Your task to perform on an android device: Add bose soundsport free to the cart on walmart, then select checkout. Image 0: 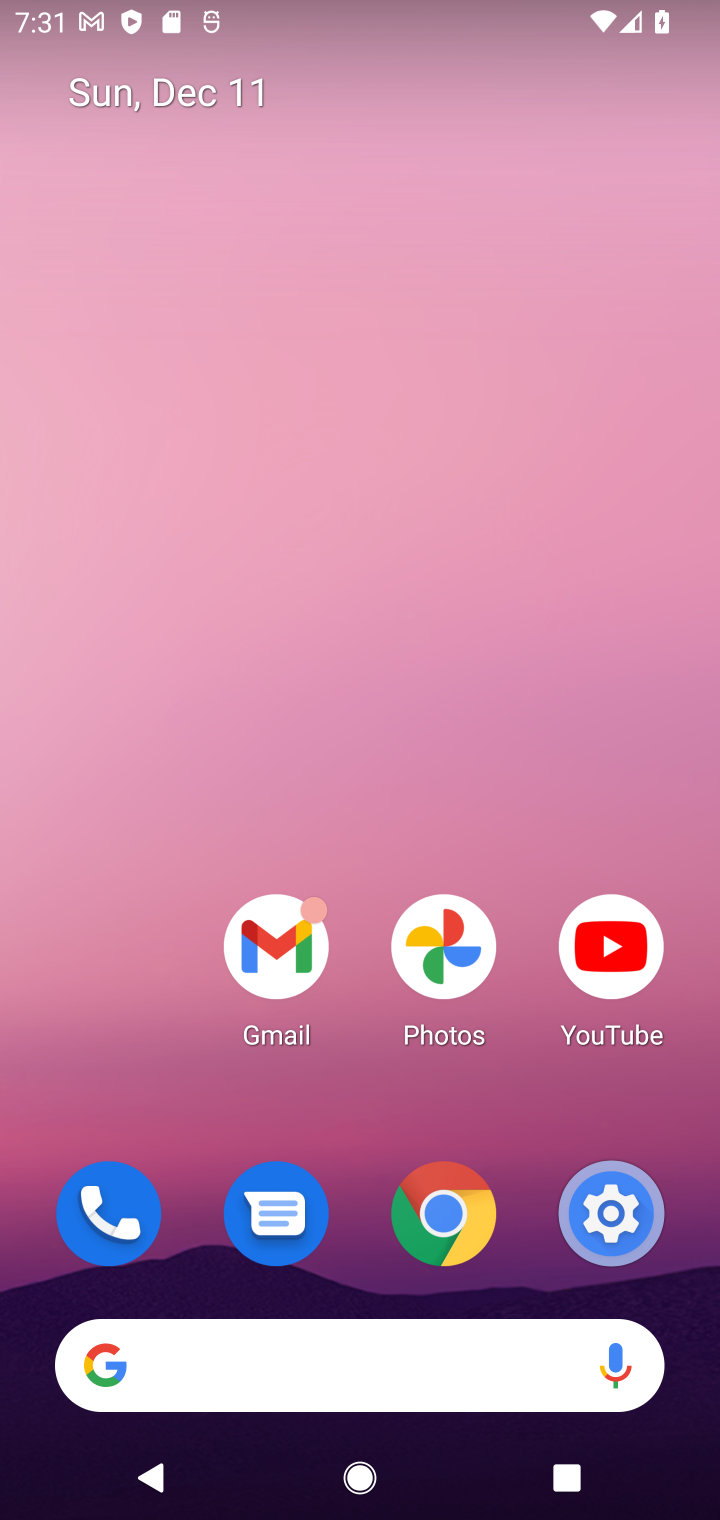
Step 0: click (443, 1329)
Your task to perform on an android device: Add bose soundsport free to the cart on walmart, then select checkout. Image 1: 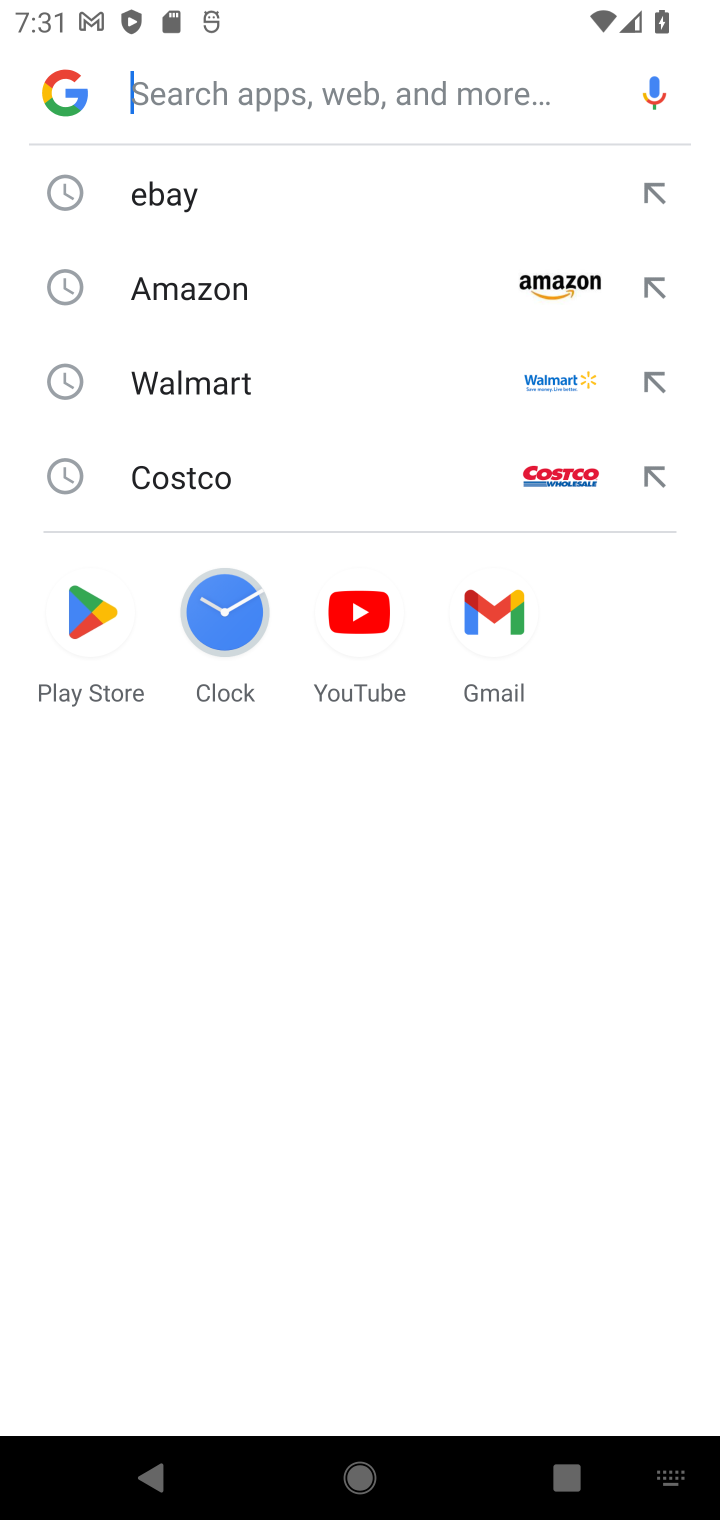
Step 1: click (300, 388)
Your task to perform on an android device: Add bose soundsport free to the cart on walmart, then select checkout. Image 2: 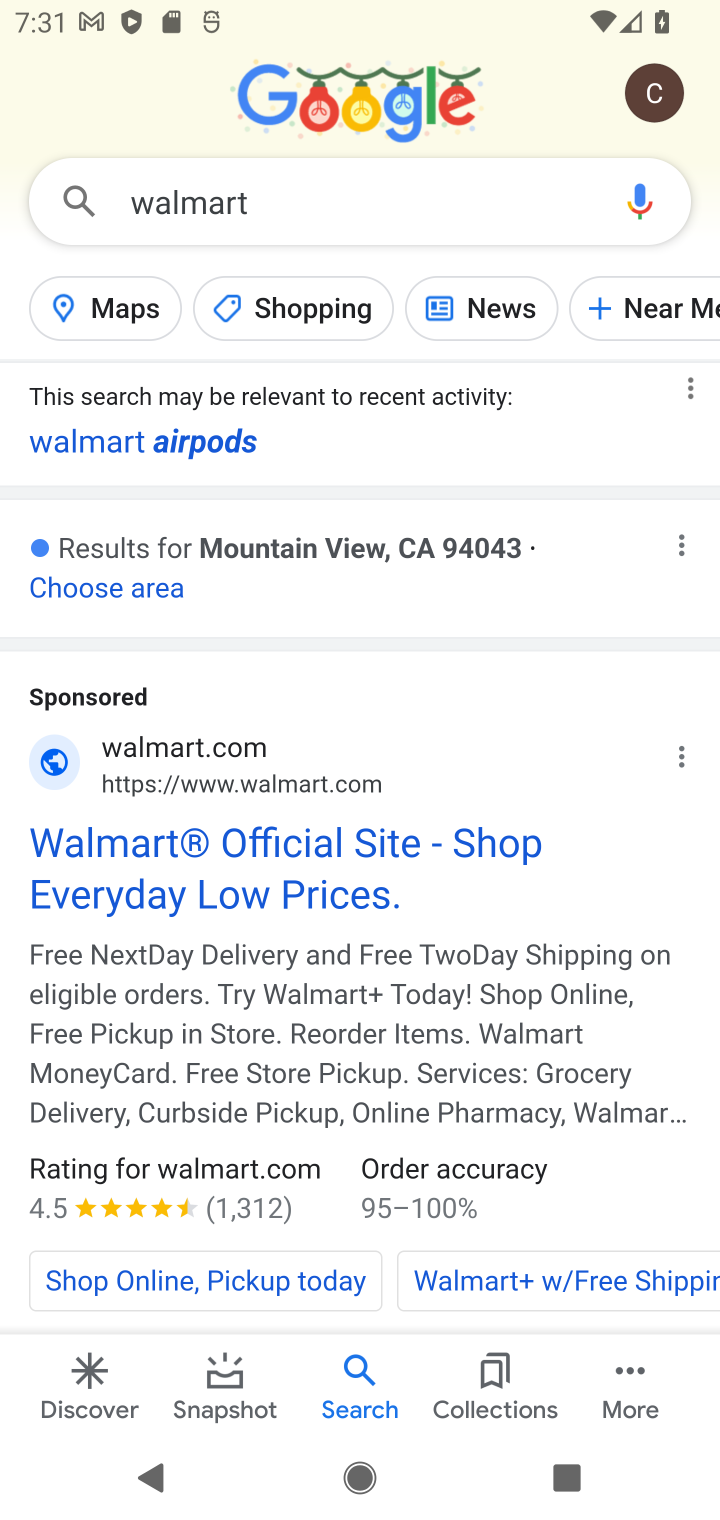
Step 2: click (119, 866)
Your task to perform on an android device: Add bose soundsport free to the cart on walmart, then select checkout. Image 3: 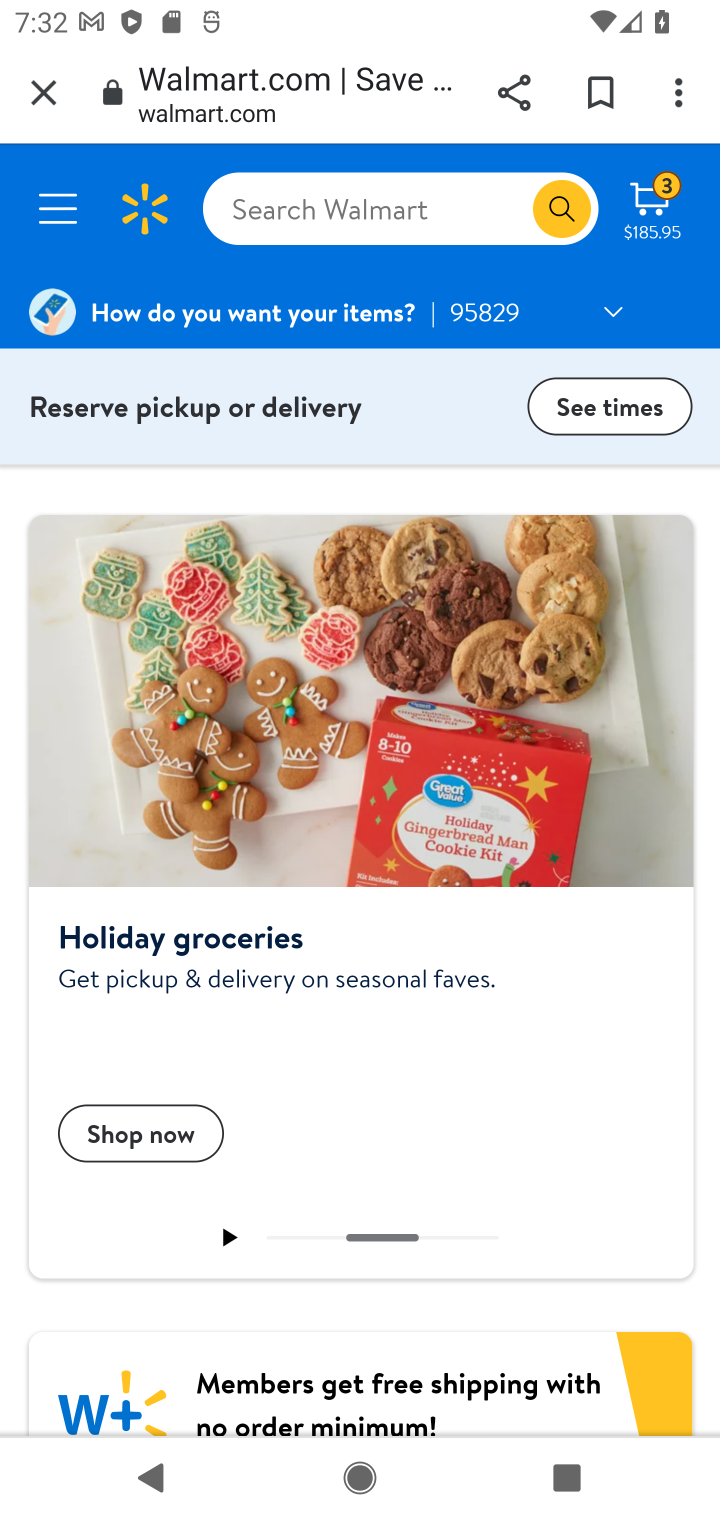
Step 3: click (355, 233)
Your task to perform on an android device: Add bose soundsport free to the cart on walmart, then select checkout. Image 4: 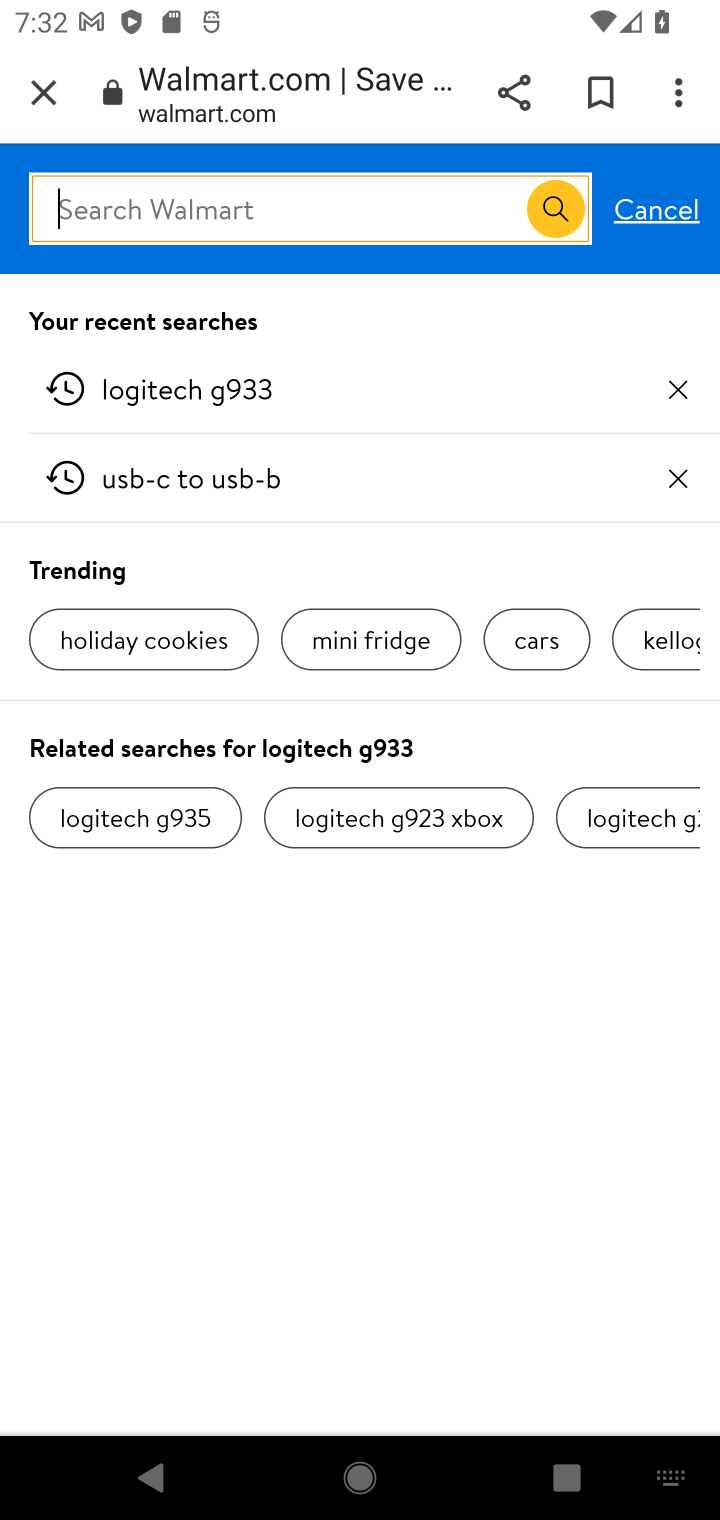
Step 4: type "bose soundsports"
Your task to perform on an android device: Add bose soundsport free to the cart on walmart, then select checkout. Image 5: 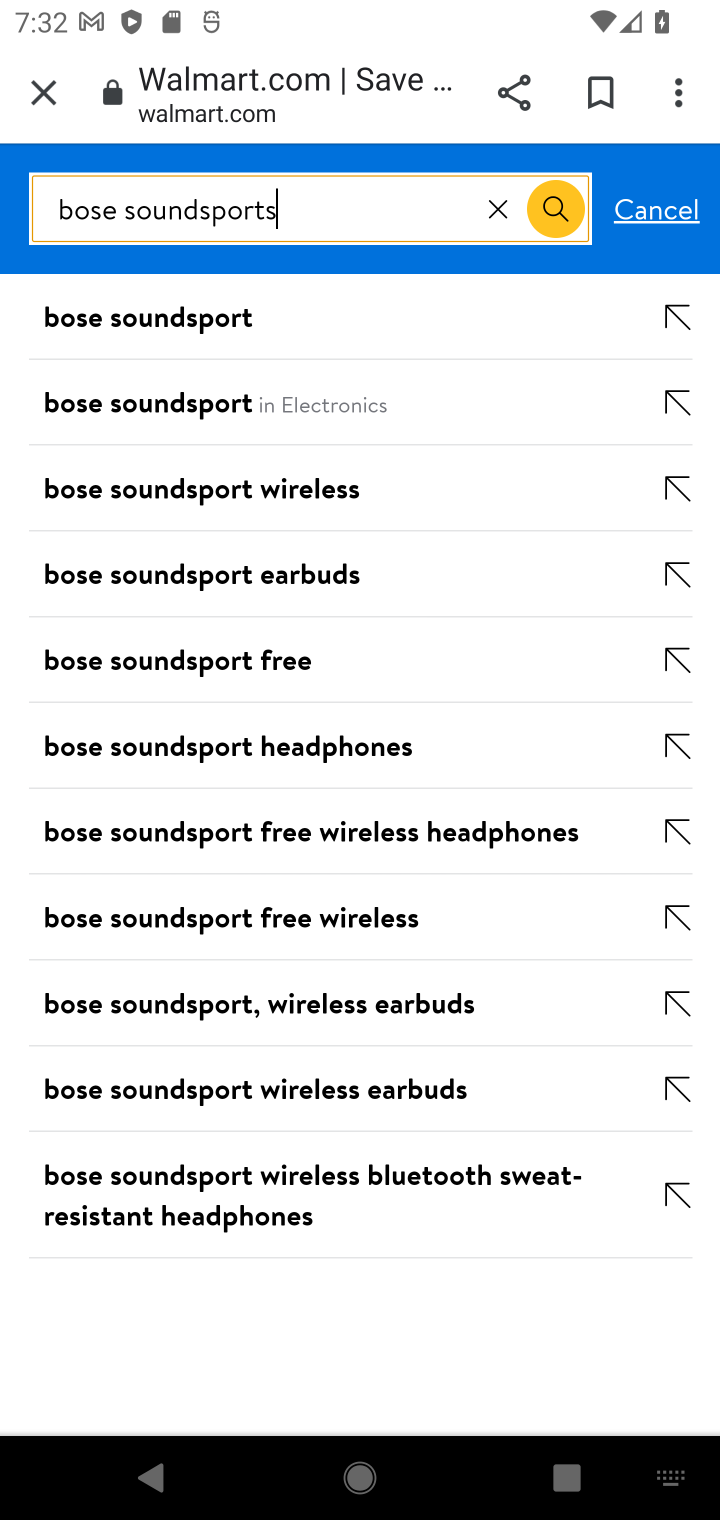
Step 5: click (333, 314)
Your task to perform on an android device: Add bose soundsport free to the cart on walmart, then select checkout. Image 6: 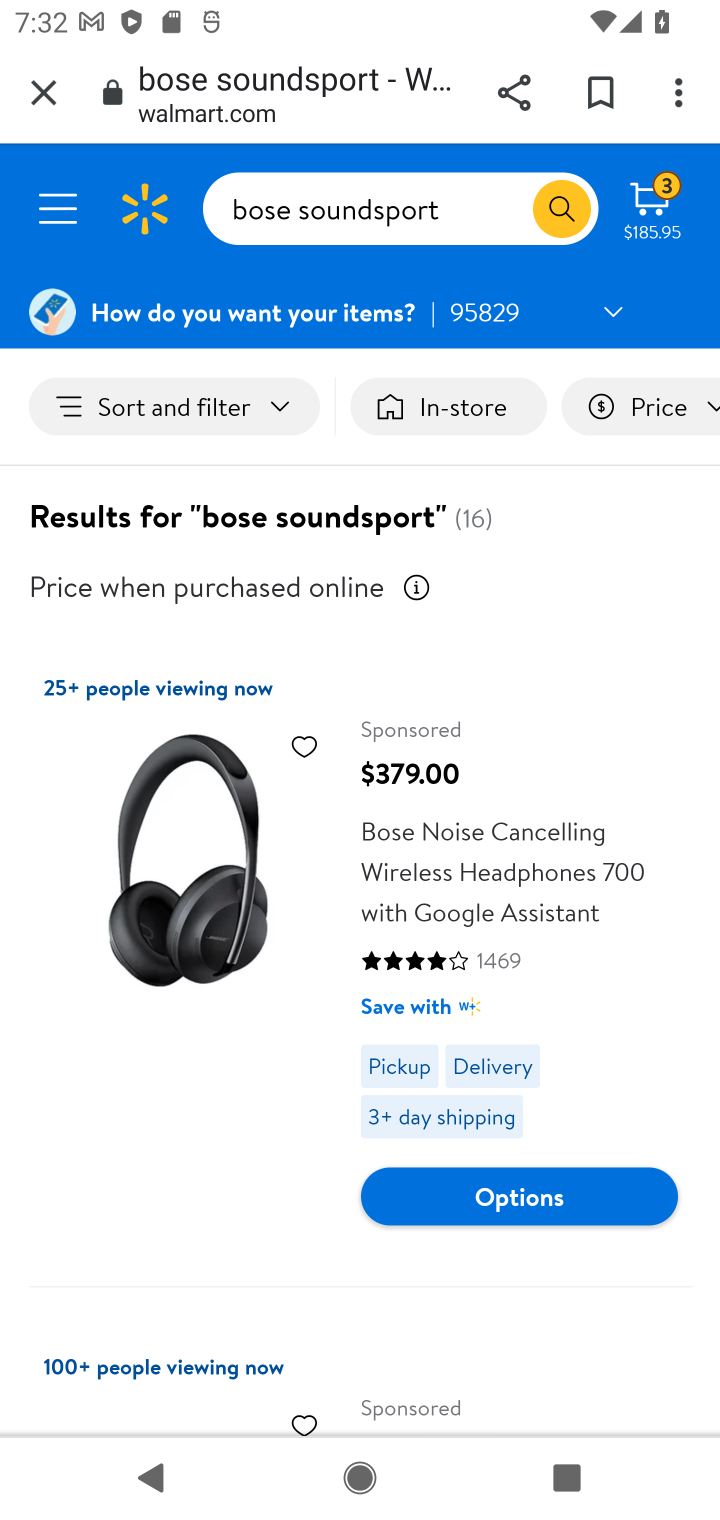
Step 6: click (597, 1206)
Your task to perform on an android device: Add bose soundsport free to the cart on walmart, then select checkout. Image 7: 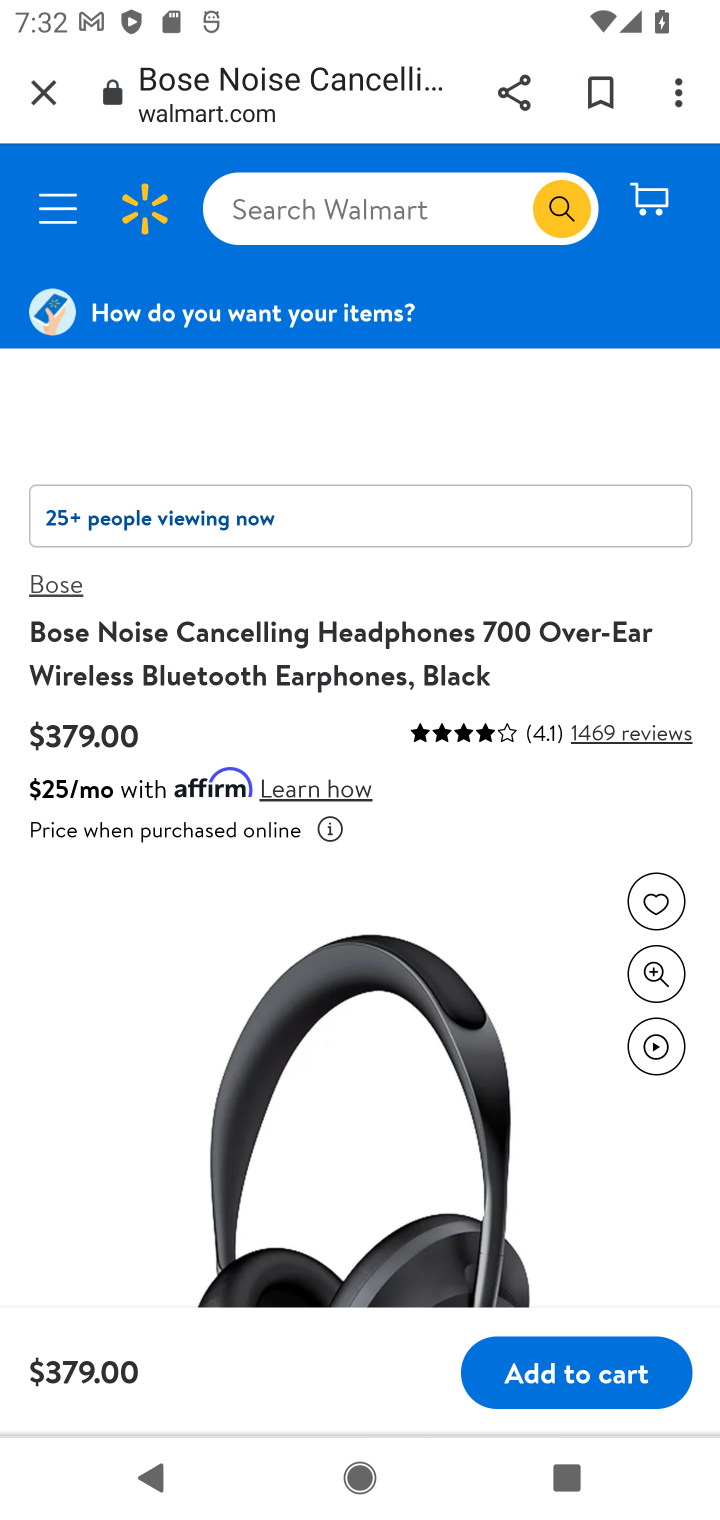
Step 7: drag from (584, 1191) to (483, 651)
Your task to perform on an android device: Add bose soundsport free to the cart on walmart, then select checkout. Image 8: 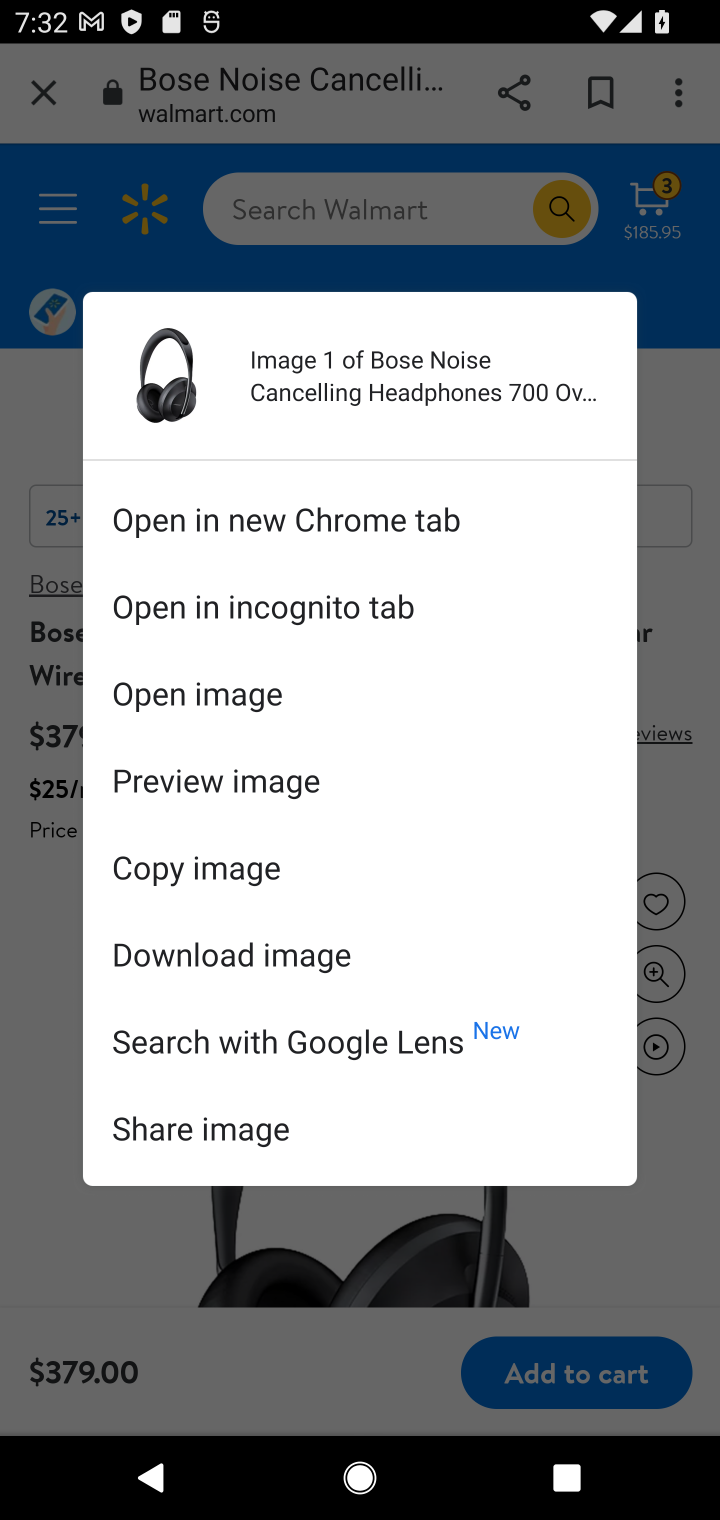
Step 8: click (404, 1285)
Your task to perform on an android device: Add bose soundsport free to the cart on walmart, then select checkout. Image 9: 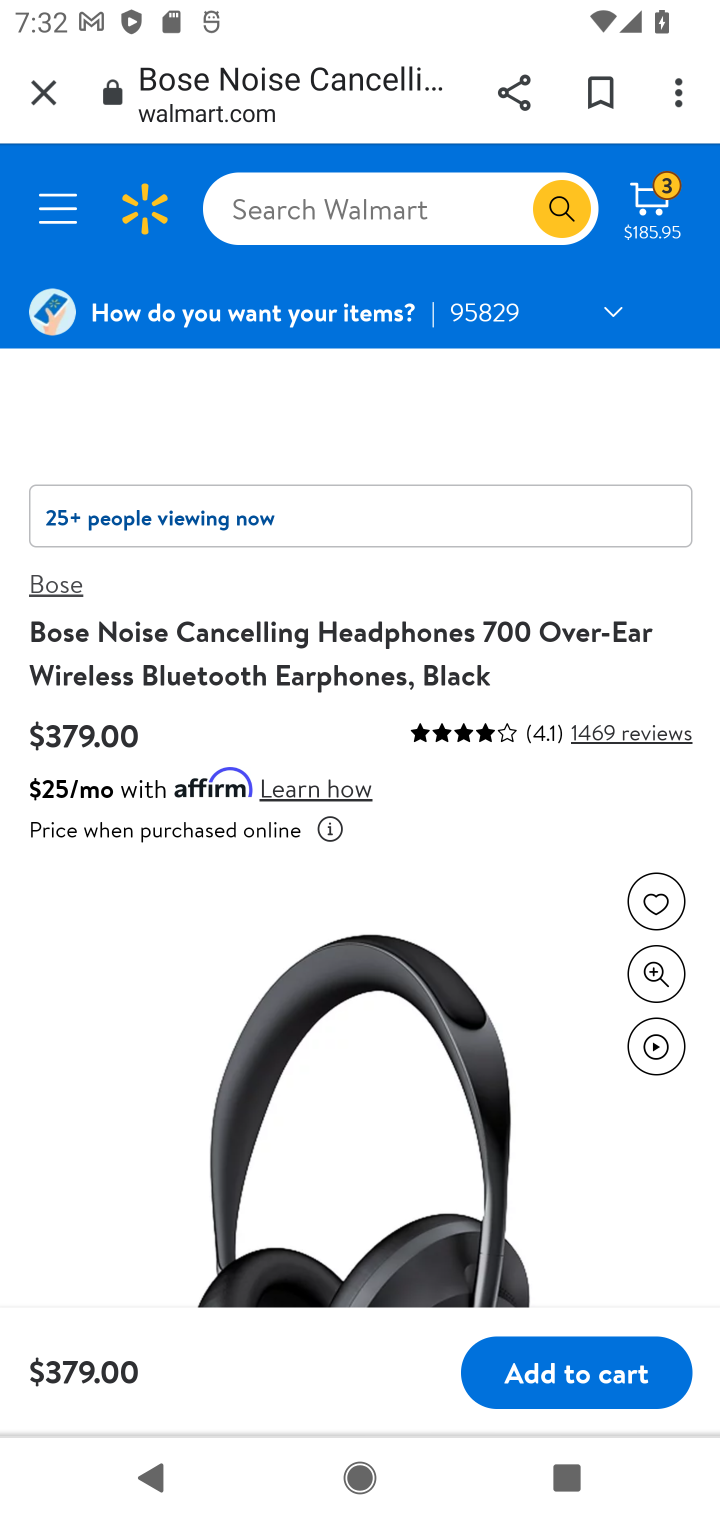
Step 9: click (514, 1377)
Your task to perform on an android device: Add bose soundsport free to the cart on walmart, then select checkout. Image 10: 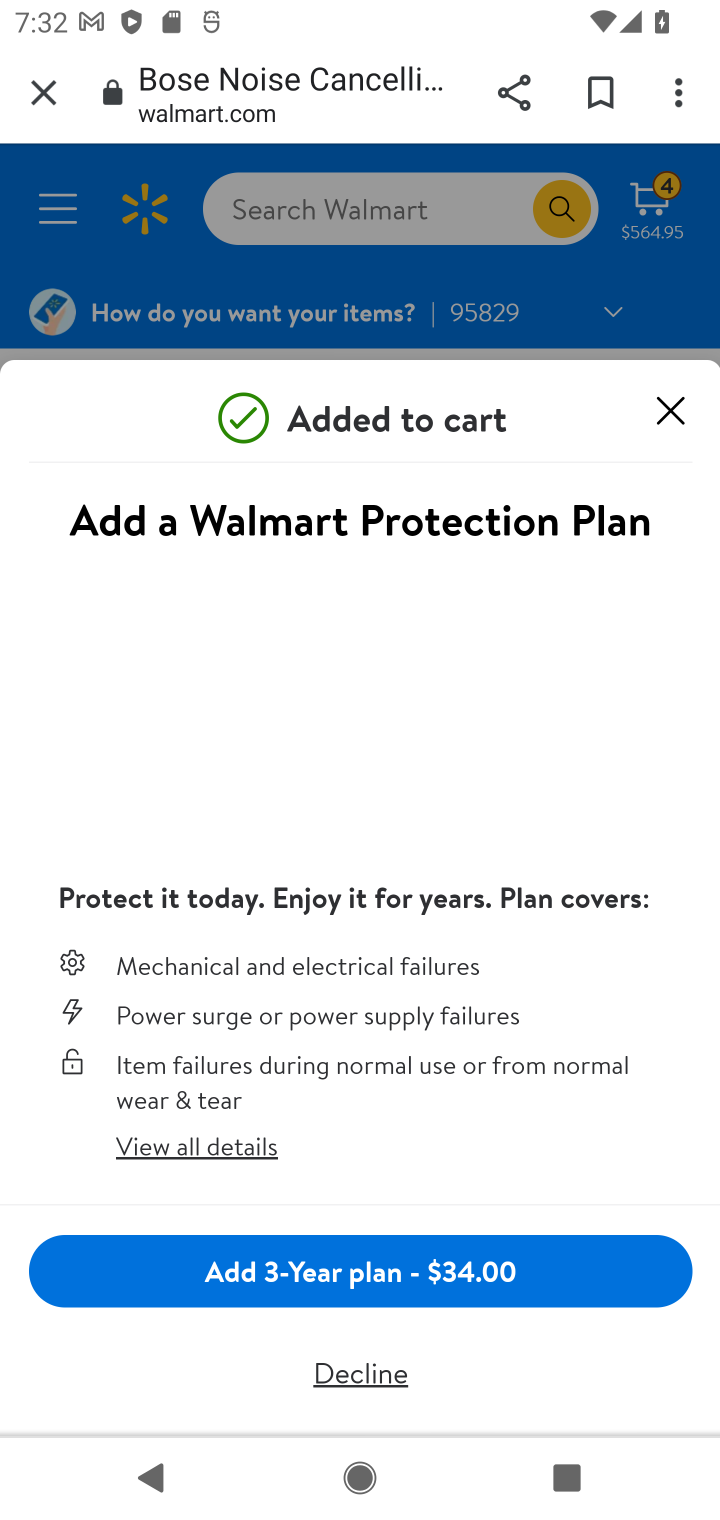
Step 10: task complete